Your task to perform on an android device: change keyboard looks Image 0: 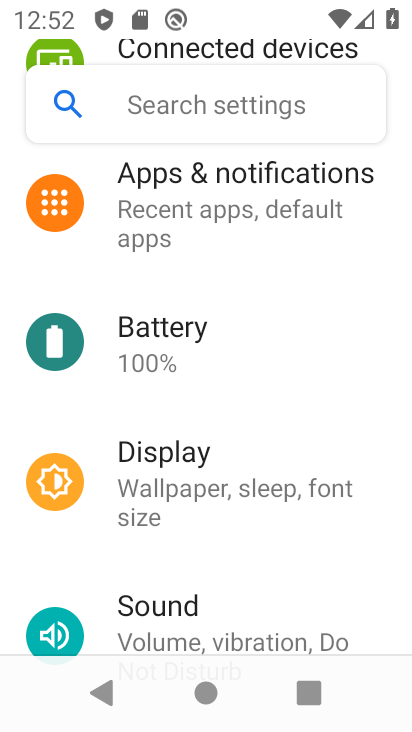
Step 0: drag from (250, 494) to (330, 4)
Your task to perform on an android device: change keyboard looks Image 1: 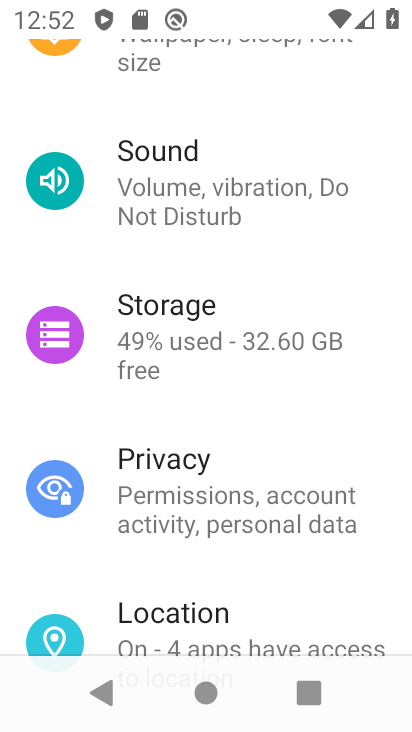
Step 1: drag from (166, 574) to (200, 15)
Your task to perform on an android device: change keyboard looks Image 2: 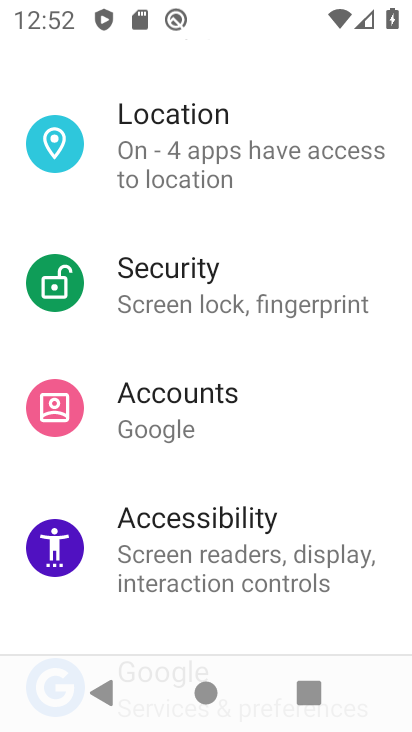
Step 2: drag from (220, 553) to (310, 24)
Your task to perform on an android device: change keyboard looks Image 3: 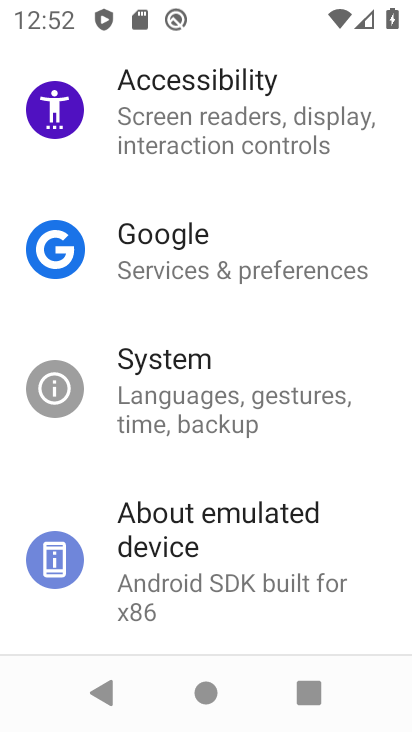
Step 3: drag from (228, 581) to (231, 405)
Your task to perform on an android device: change keyboard looks Image 4: 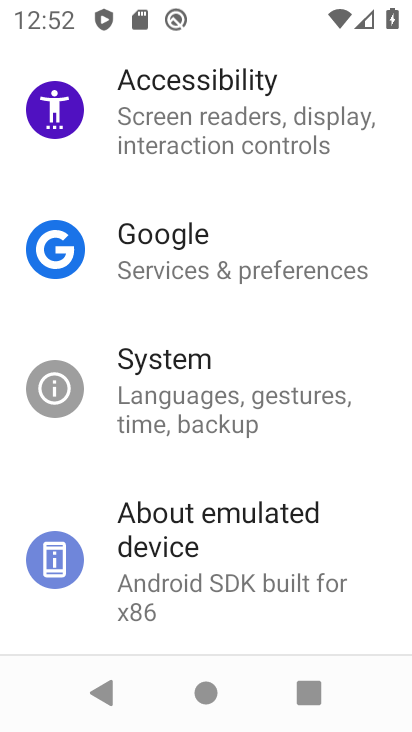
Step 4: click (218, 397)
Your task to perform on an android device: change keyboard looks Image 5: 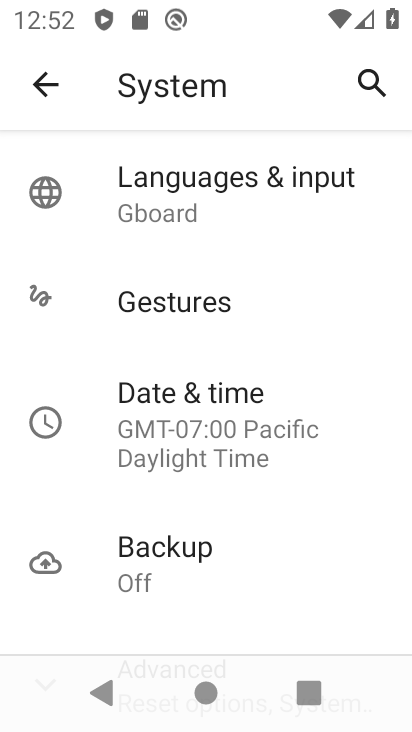
Step 5: click (195, 204)
Your task to perform on an android device: change keyboard looks Image 6: 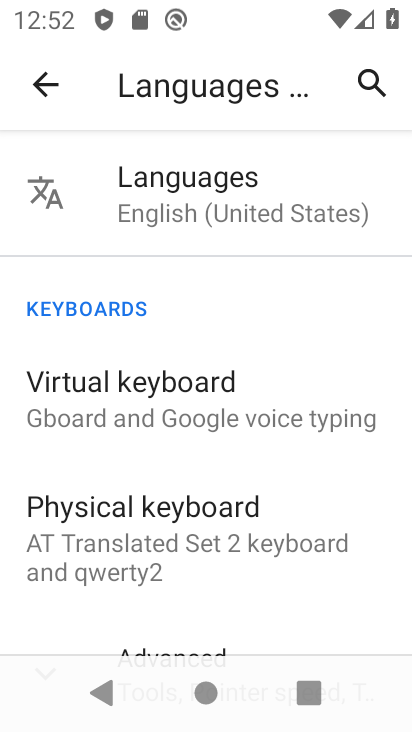
Step 6: click (173, 404)
Your task to perform on an android device: change keyboard looks Image 7: 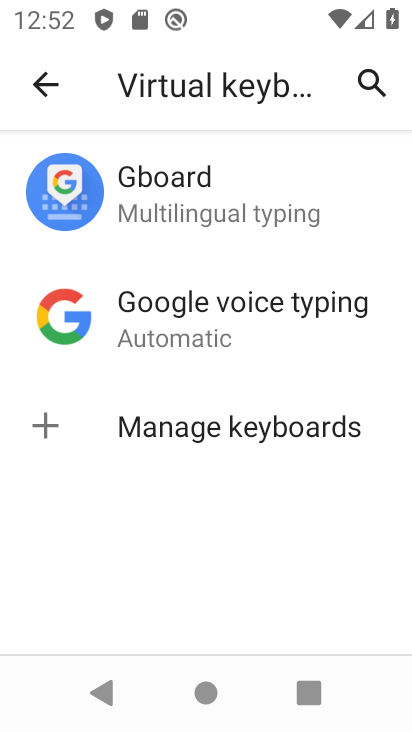
Step 7: click (194, 221)
Your task to perform on an android device: change keyboard looks Image 8: 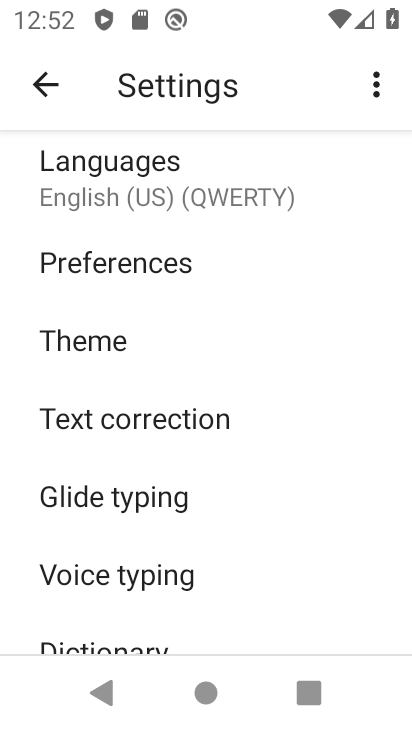
Step 8: click (141, 329)
Your task to perform on an android device: change keyboard looks Image 9: 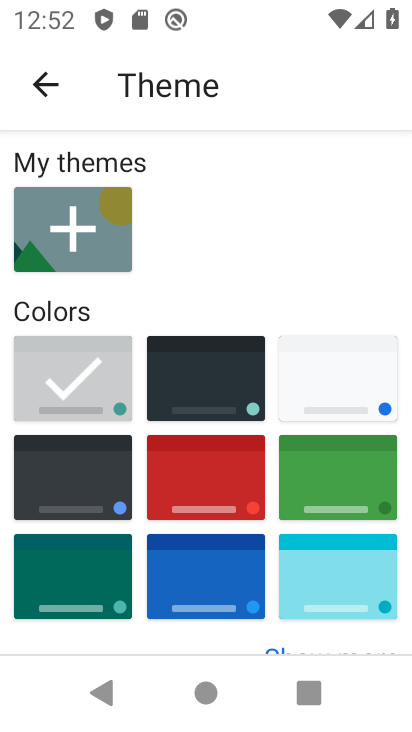
Step 9: click (199, 386)
Your task to perform on an android device: change keyboard looks Image 10: 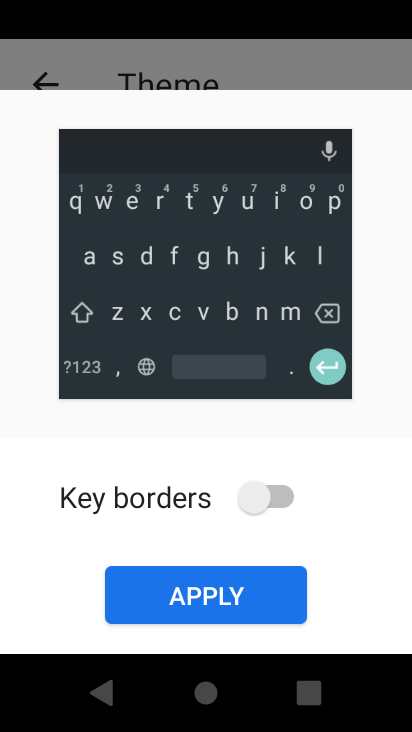
Step 10: click (246, 590)
Your task to perform on an android device: change keyboard looks Image 11: 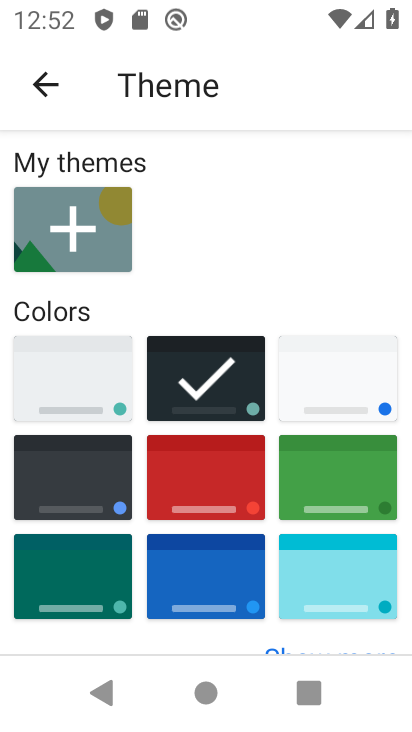
Step 11: task complete